Your task to perform on an android device: see sites visited before in the chrome app Image 0: 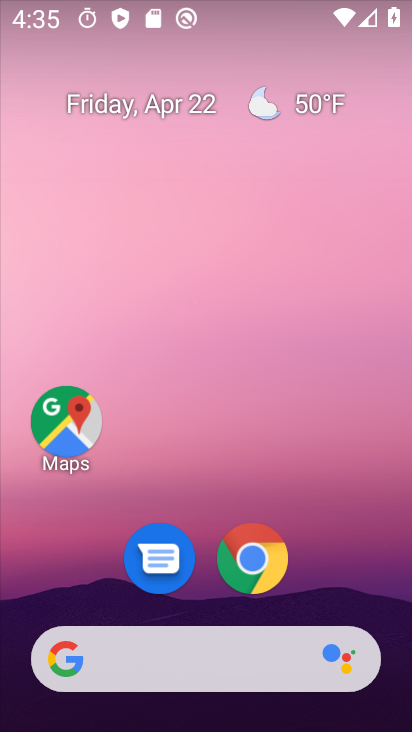
Step 0: drag from (326, 579) to (258, 247)
Your task to perform on an android device: see sites visited before in the chrome app Image 1: 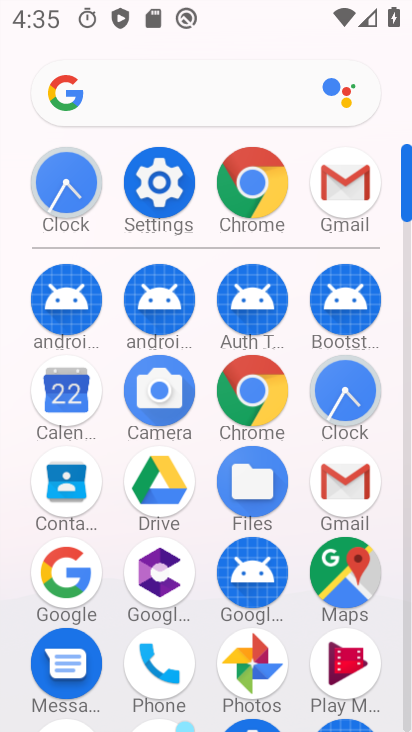
Step 1: click (252, 207)
Your task to perform on an android device: see sites visited before in the chrome app Image 2: 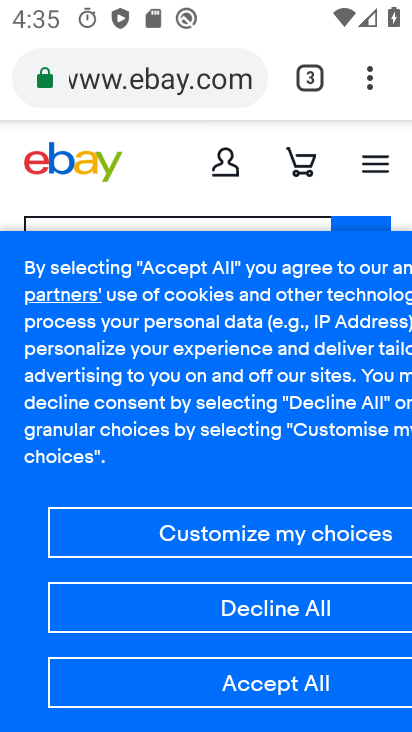
Step 2: click (368, 84)
Your task to perform on an android device: see sites visited before in the chrome app Image 3: 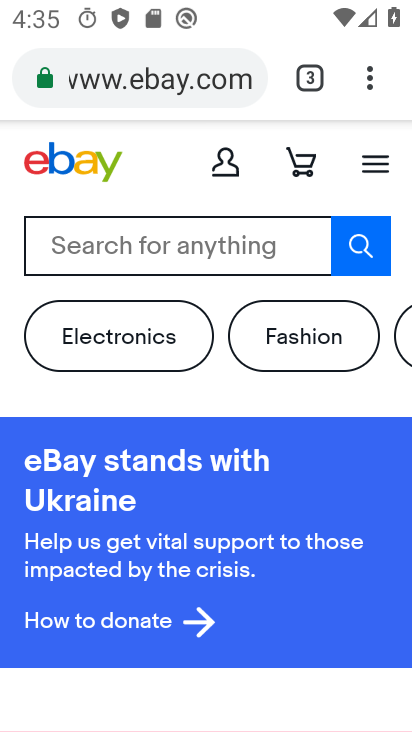
Step 3: click (373, 72)
Your task to perform on an android device: see sites visited before in the chrome app Image 4: 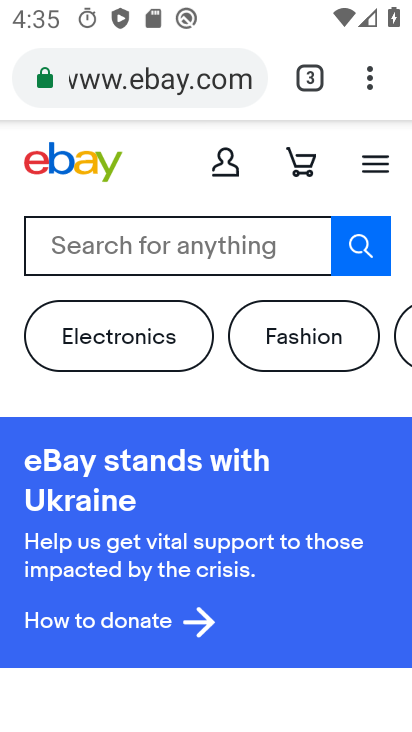
Step 4: click (369, 86)
Your task to perform on an android device: see sites visited before in the chrome app Image 5: 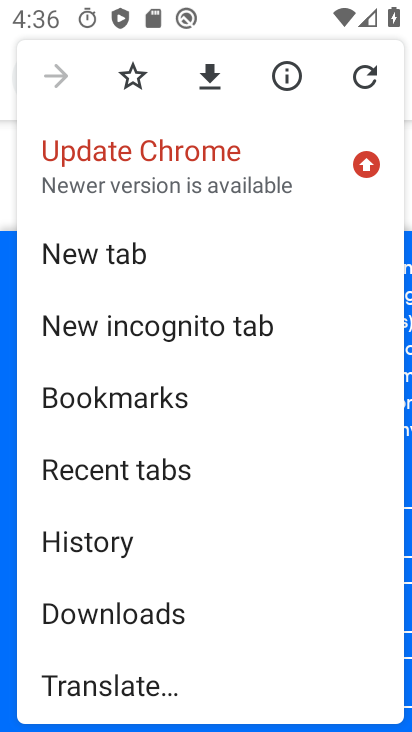
Step 5: click (101, 532)
Your task to perform on an android device: see sites visited before in the chrome app Image 6: 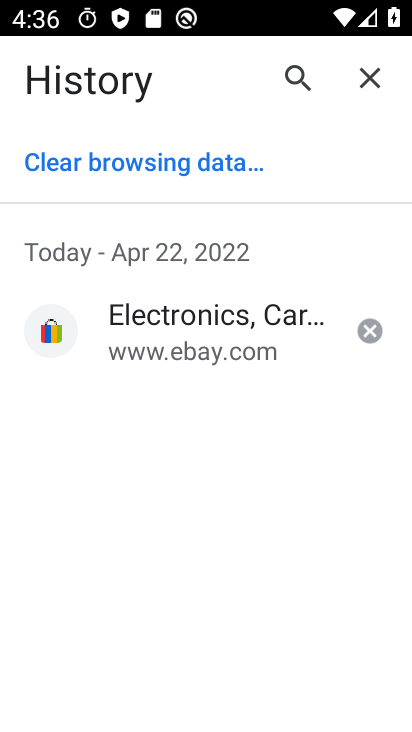
Step 6: task complete